Your task to perform on an android device: Open Chrome and go to settings Image 0: 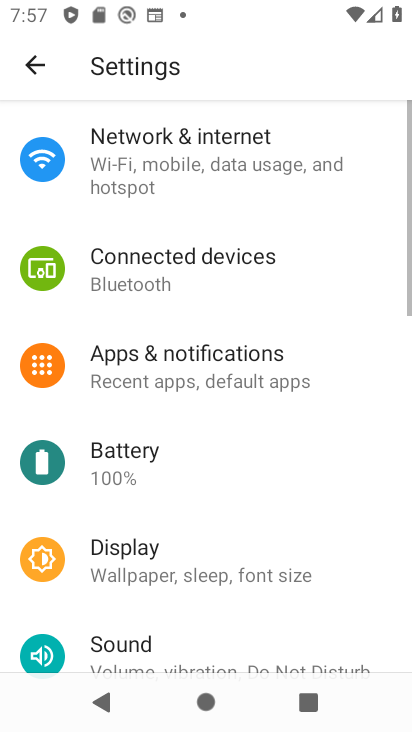
Step 0: press home button
Your task to perform on an android device: Open Chrome and go to settings Image 1: 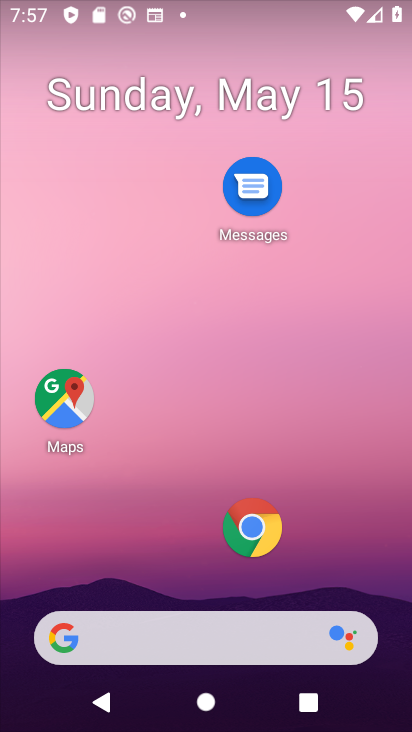
Step 1: click (256, 540)
Your task to perform on an android device: Open Chrome and go to settings Image 2: 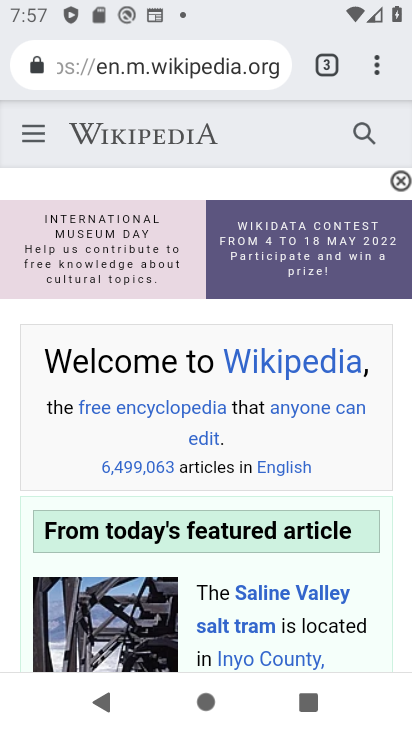
Step 2: task complete